Your task to perform on an android device: change notifications settings Image 0: 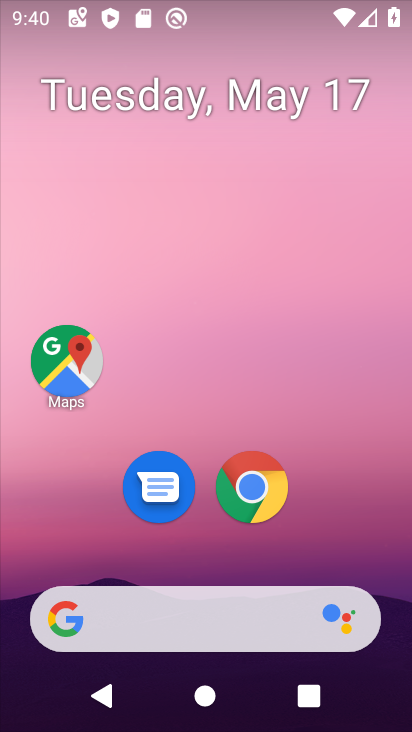
Step 0: press home button
Your task to perform on an android device: change notifications settings Image 1: 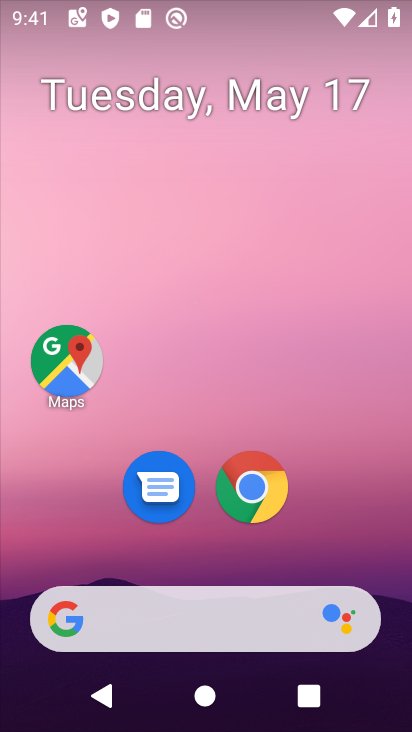
Step 1: drag from (251, 647) to (246, 277)
Your task to perform on an android device: change notifications settings Image 2: 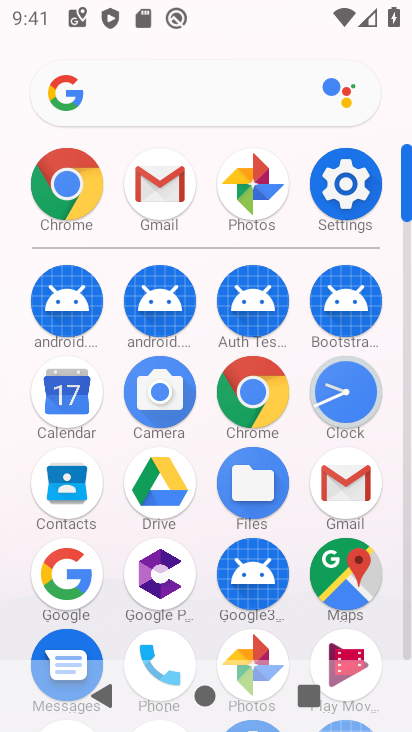
Step 2: click (352, 158)
Your task to perform on an android device: change notifications settings Image 3: 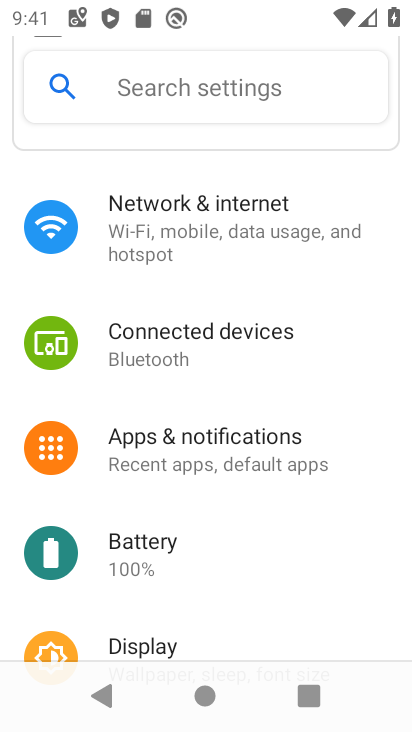
Step 3: click (216, 104)
Your task to perform on an android device: change notifications settings Image 4: 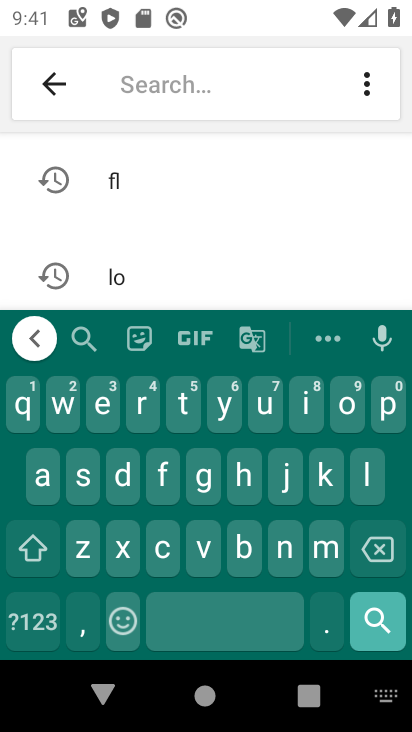
Step 4: click (279, 556)
Your task to perform on an android device: change notifications settings Image 5: 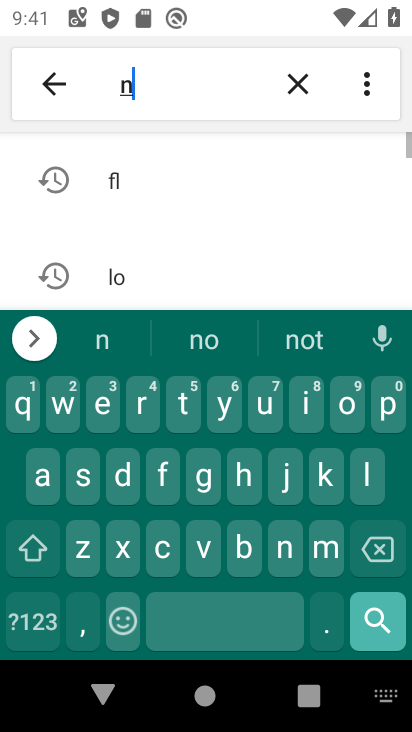
Step 5: click (349, 412)
Your task to perform on an android device: change notifications settings Image 6: 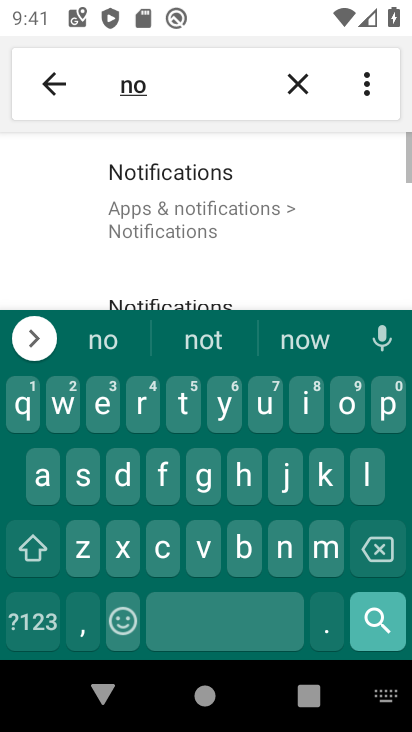
Step 6: click (202, 184)
Your task to perform on an android device: change notifications settings Image 7: 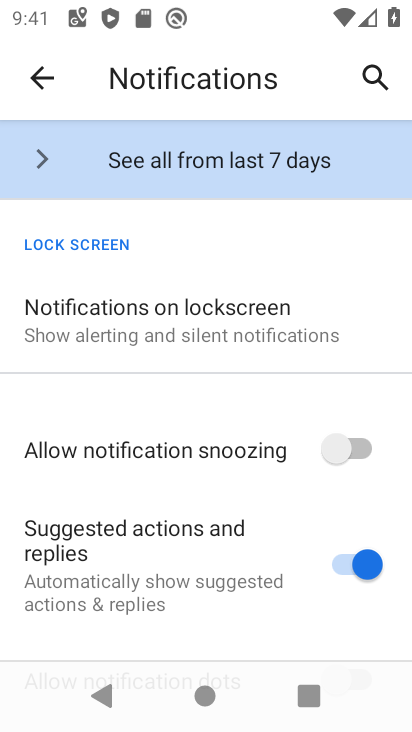
Step 7: click (138, 316)
Your task to perform on an android device: change notifications settings Image 8: 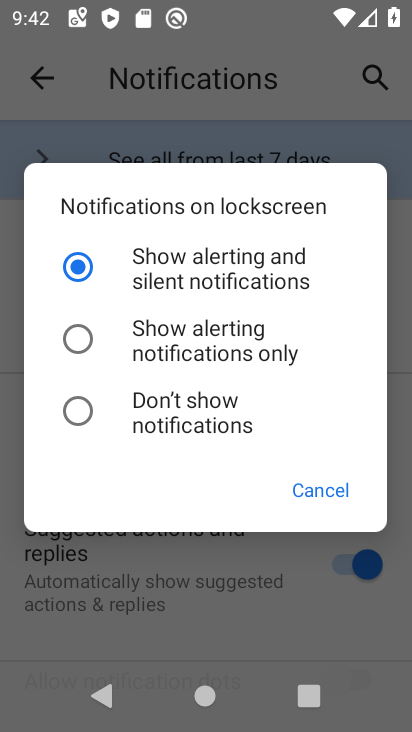
Step 8: click (119, 322)
Your task to perform on an android device: change notifications settings Image 9: 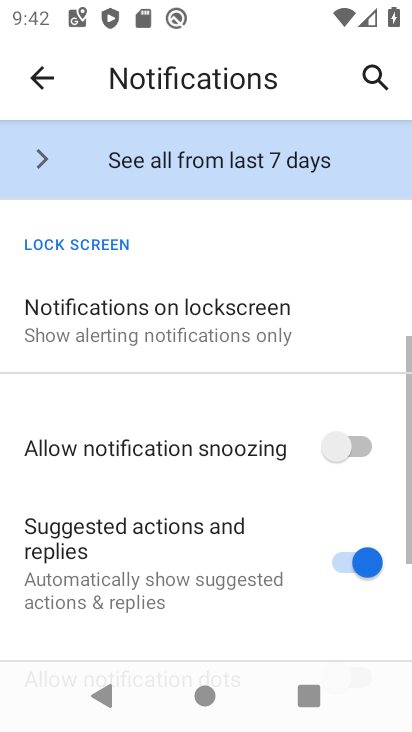
Step 9: task complete